Your task to perform on an android device: Go to eBay Image 0: 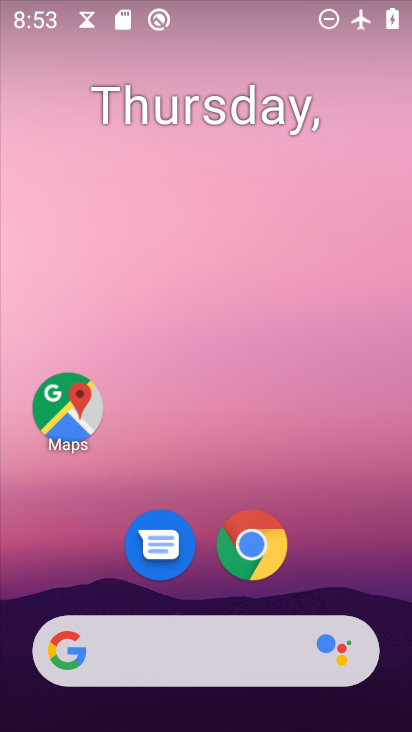
Step 0: drag from (318, 563) to (262, 92)
Your task to perform on an android device: Go to eBay Image 1: 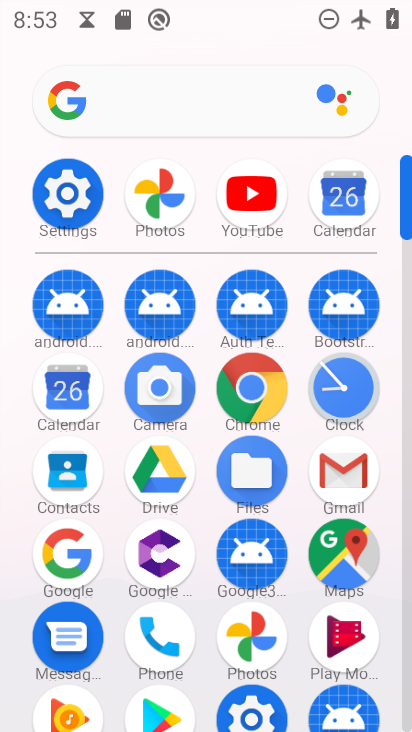
Step 1: click (61, 549)
Your task to perform on an android device: Go to eBay Image 2: 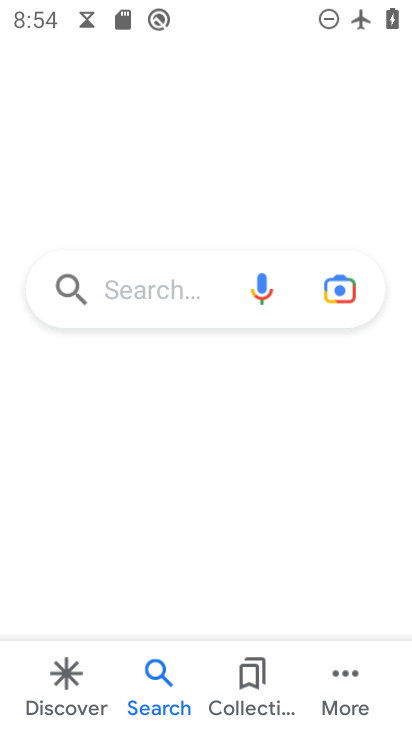
Step 2: click (166, 311)
Your task to perform on an android device: Go to eBay Image 3: 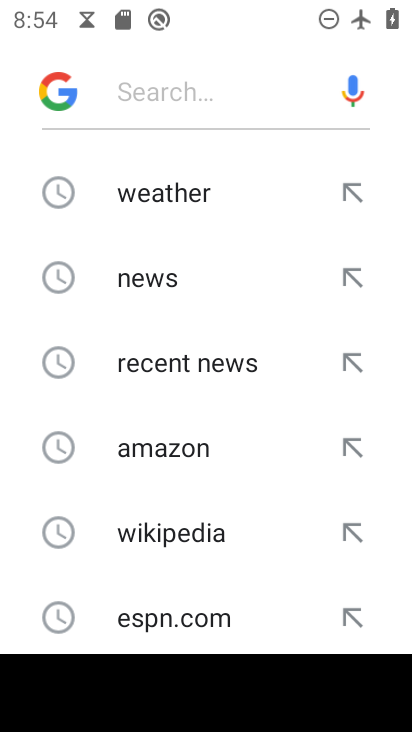
Step 3: type "eBay"
Your task to perform on an android device: Go to eBay Image 4: 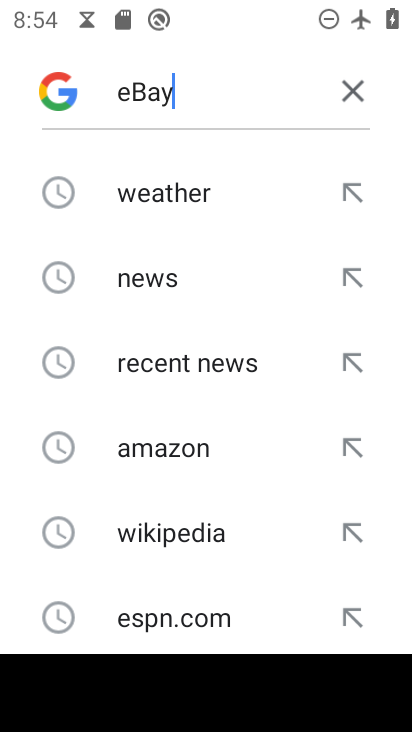
Step 4: type ""
Your task to perform on an android device: Go to eBay Image 5: 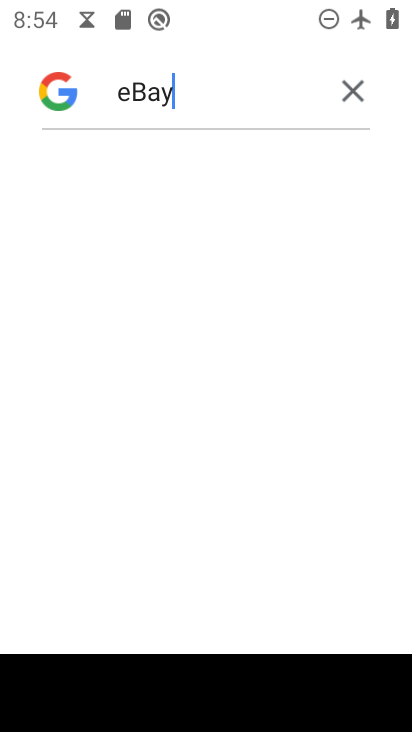
Step 5: task complete